Your task to perform on an android device: open sync settings in chrome Image 0: 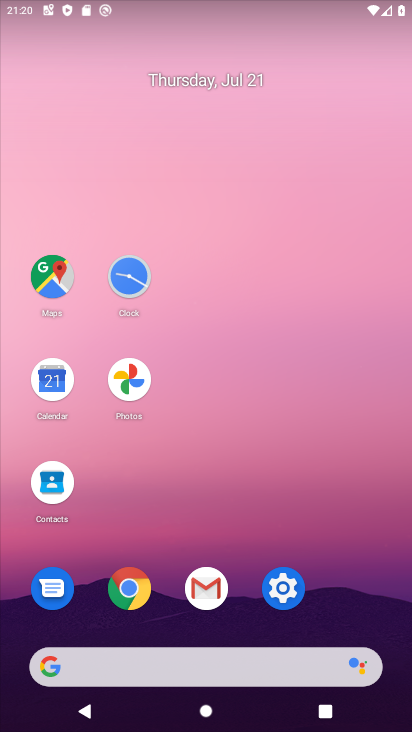
Step 0: click (131, 586)
Your task to perform on an android device: open sync settings in chrome Image 1: 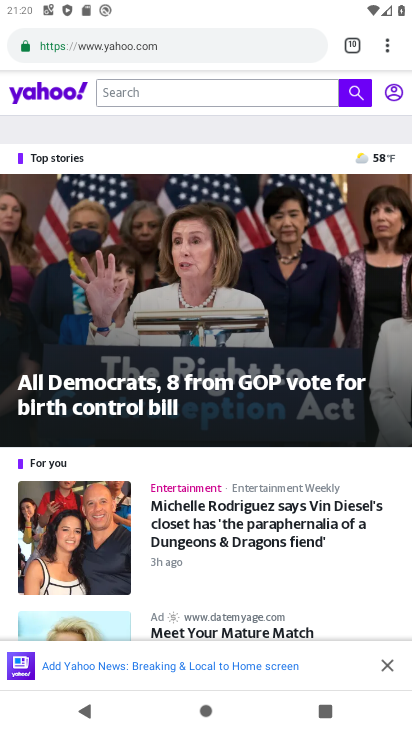
Step 1: click (389, 44)
Your task to perform on an android device: open sync settings in chrome Image 2: 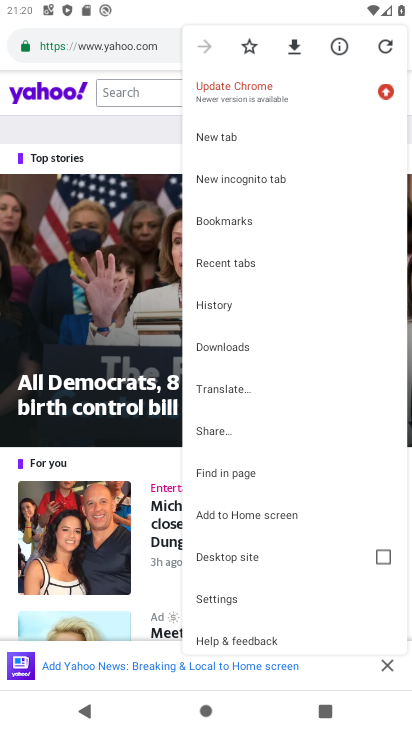
Step 2: click (217, 596)
Your task to perform on an android device: open sync settings in chrome Image 3: 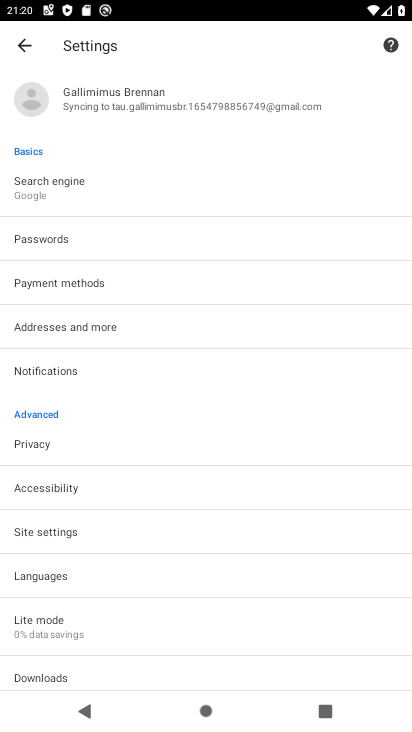
Step 3: click (101, 93)
Your task to perform on an android device: open sync settings in chrome Image 4: 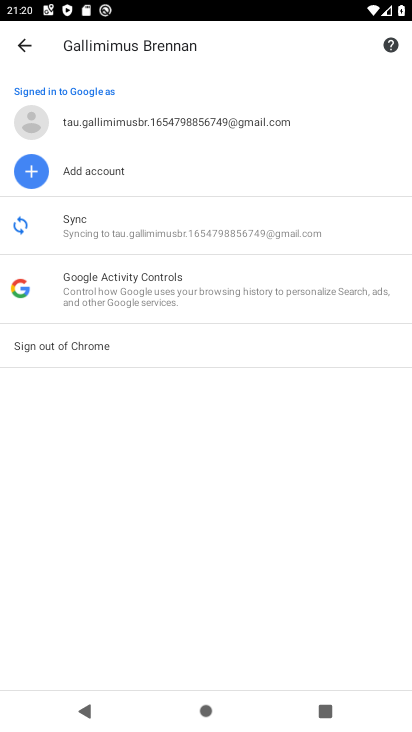
Step 4: click (88, 222)
Your task to perform on an android device: open sync settings in chrome Image 5: 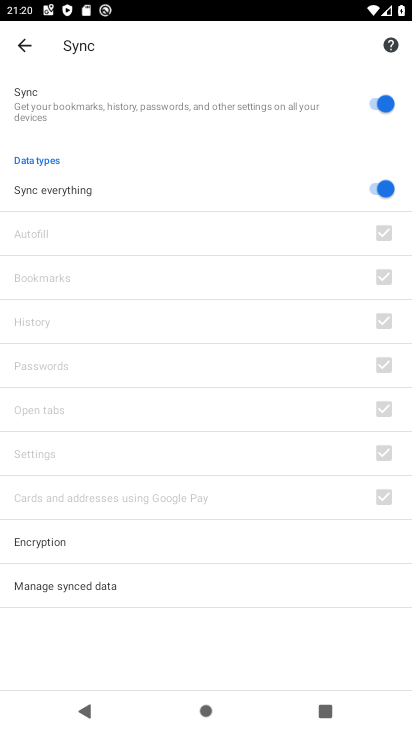
Step 5: task complete